Your task to perform on an android device: uninstall "Microsoft Authenticator" Image 0: 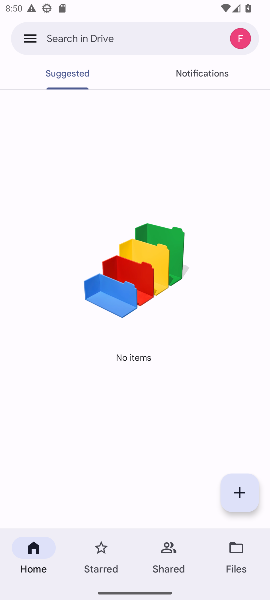
Step 0: press home button
Your task to perform on an android device: uninstall "Microsoft Authenticator" Image 1: 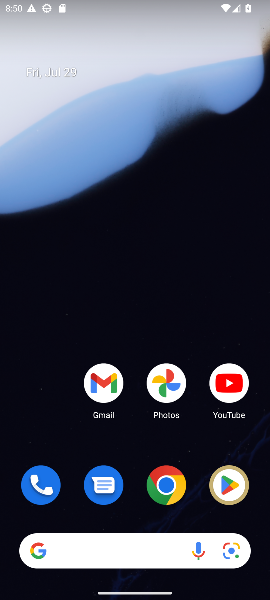
Step 1: drag from (133, 532) to (123, 150)
Your task to perform on an android device: uninstall "Microsoft Authenticator" Image 2: 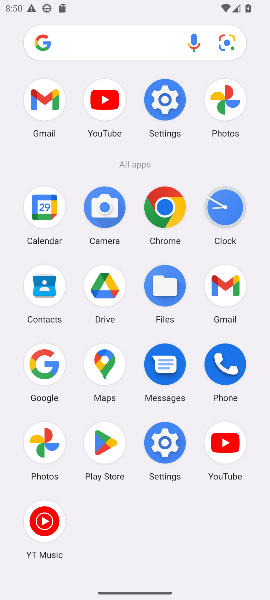
Step 2: click (102, 465)
Your task to perform on an android device: uninstall "Microsoft Authenticator" Image 3: 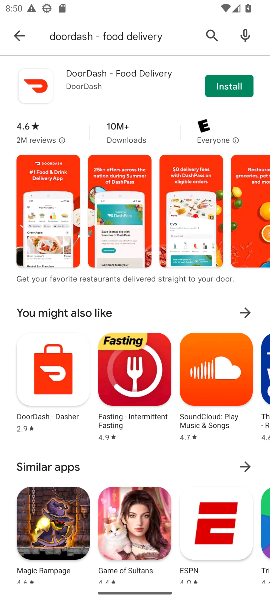
Step 3: click (215, 38)
Your task to perform on an android device: uninstall "Microsoft Authenticator" Image 4: 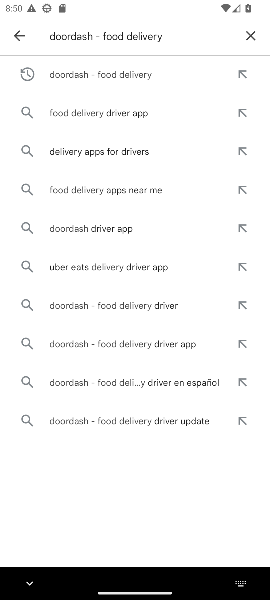
Step 4: click (250, 34)
Your task to perform on an android device: uninstall "Microsoft Authenticator" Image 5: 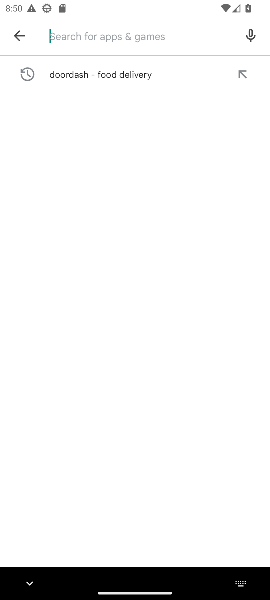
Step 5: type "Microsoft Authenticator"
Your task to perform on an android device: uninstall "Microsoft Authenticator" Image 6: 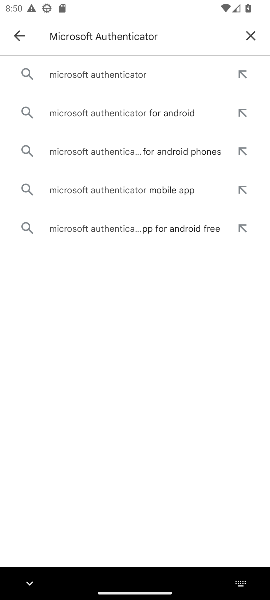
Step 6: click (104, 70)
Your task to perform on an android device: uninstall "Microsoft Authenticator" Image 7: 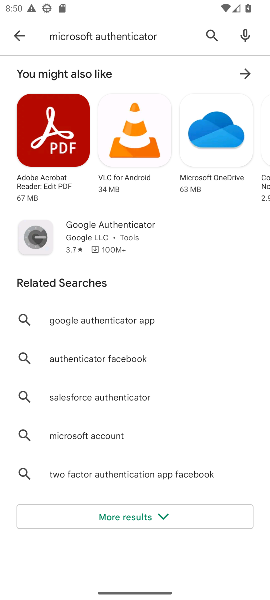
Step 7: task complete